Your task to perform on an android device: Open calendar and show me the first week of next month Image 0: 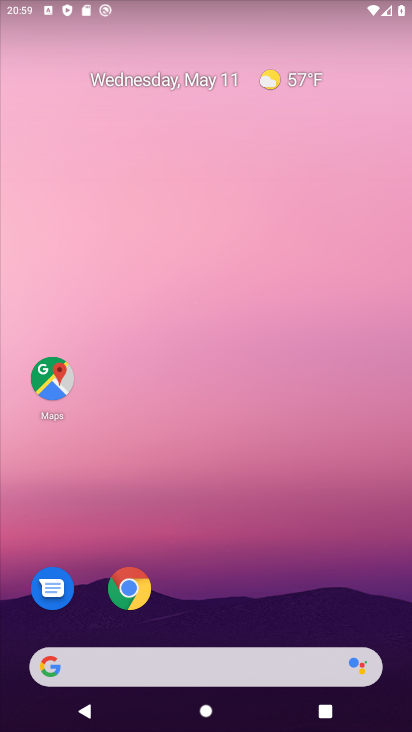
Step 0: drag from (250, 716) to (263, 144)
Your task to perform on an android device: Open calendar and show me the first week of next month Image 1: 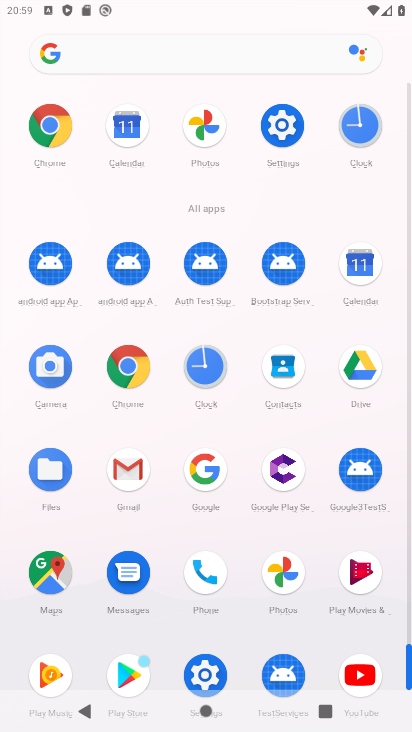
Step 1: click (365, 270)
Your task to perform on an android device: Open calendar and show me the first week of next month Image 2: 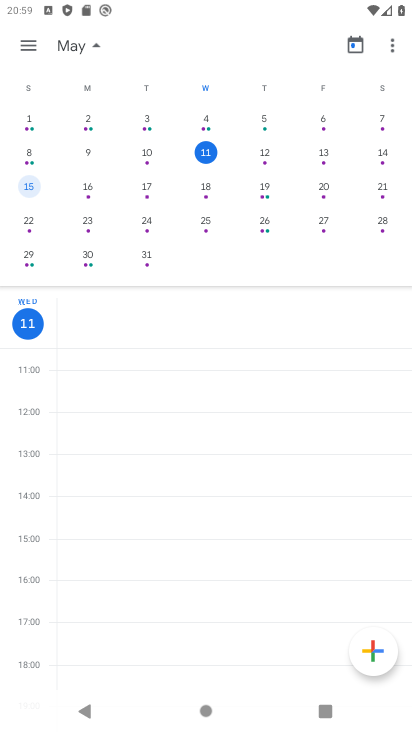
Step 2: drag from (345, 181) to (23, 211)
Your task to perform on an android device: Open calendar and show me the first week of next month Image 3: 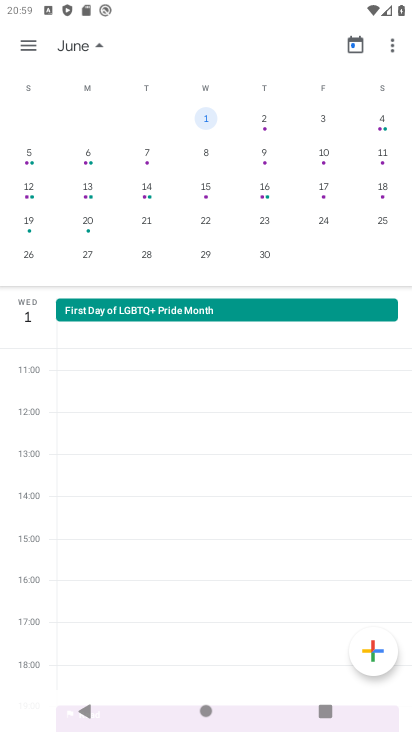
Step 3: click (198, 119)
Your task to perform on an android device: Open calendar and show me the first week of next month Image 4: 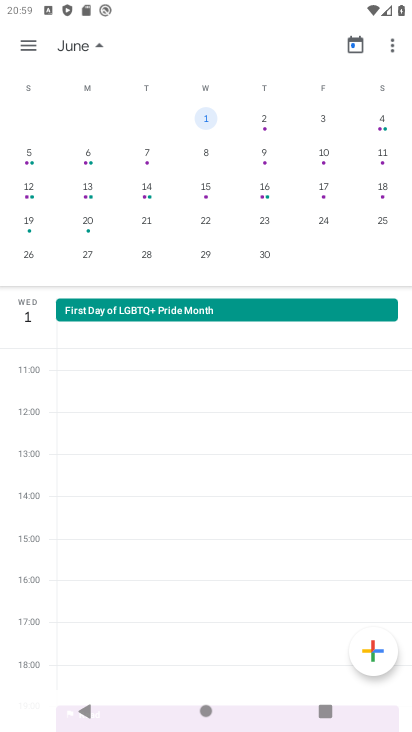
Step 4: task complete